Your task to perform on an android device: Open Youtube and go to "Your channel" Image 0: 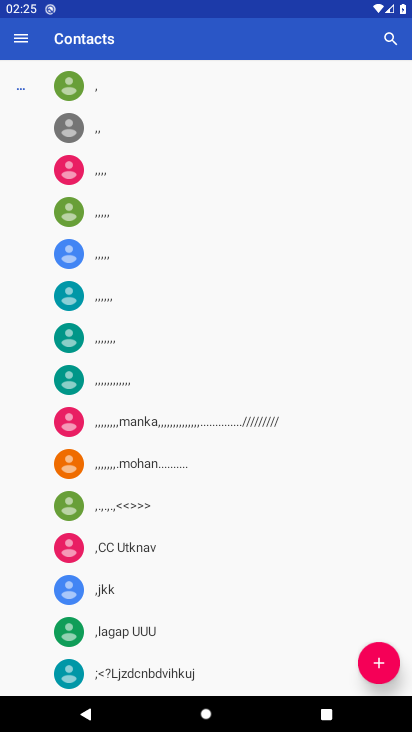
Step 0: press home button
Your task to perform on an android device: Open Youtube and go to "Your channel" Image 1: 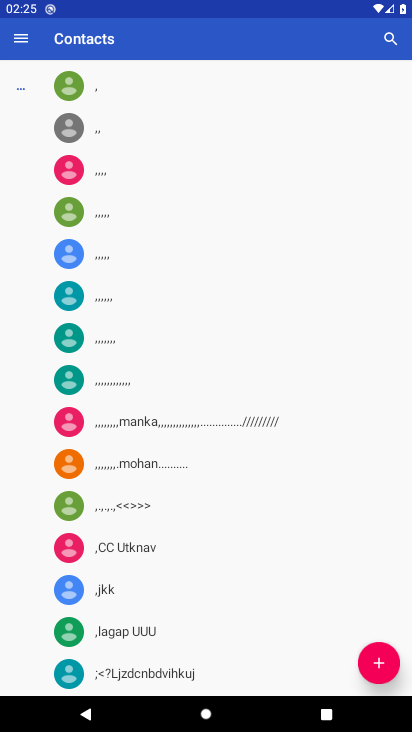
Step 1: press home button
Your task to perform on an android device: Open Youtube and go to "Your channel" Image 2: 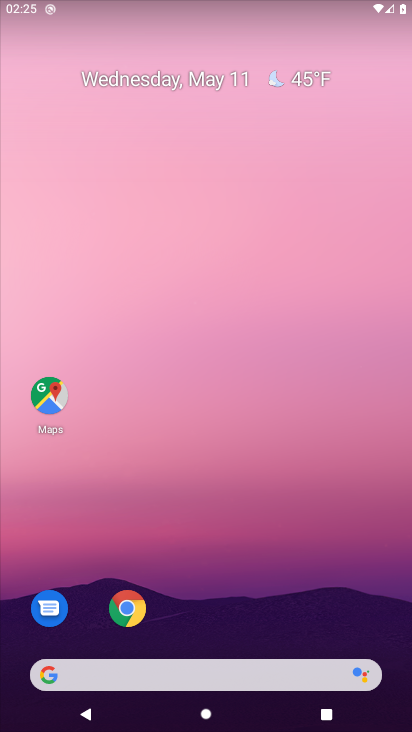
Step 2: drag from (209, 632) to (234, 99)
Your task to perform on an android device: Open Youtube and go to "Your channel" Image 3: 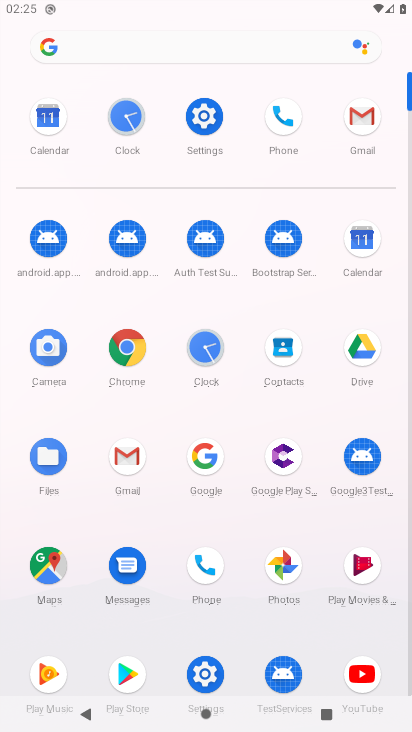
Step 3: click (360, 669)
Your task to perform on an android device: Open Youtube and go to "Your channel" Image 4: 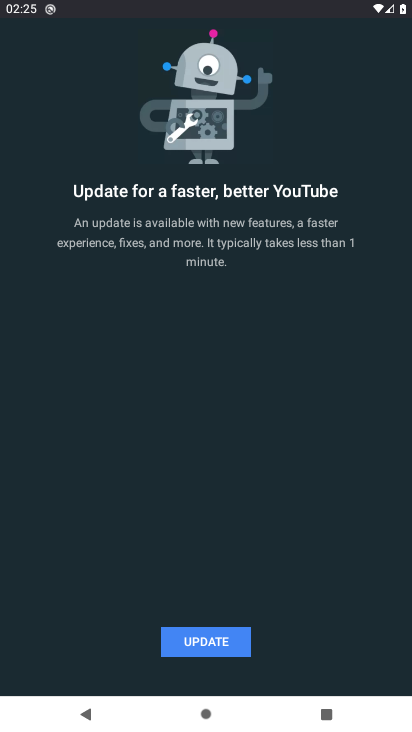
Step 4: click (218, 638)
Your task to perform on an android device: Open Youtube and go to "Your channel" Image 5: 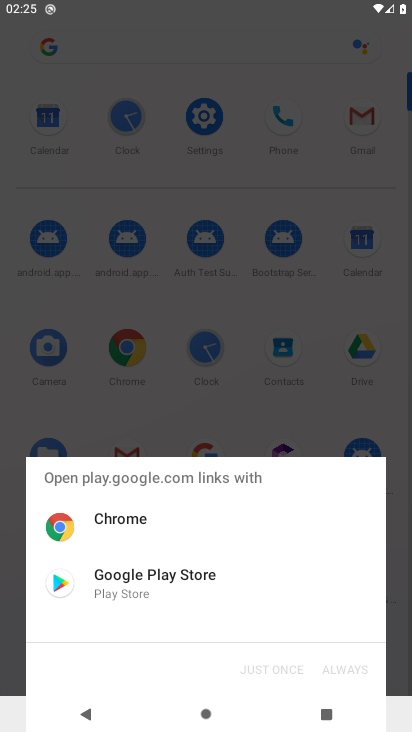
Step 5: click (122, 579)
Your task to perform on an android device: Open Youtube and go to "Your channel" Image 6: 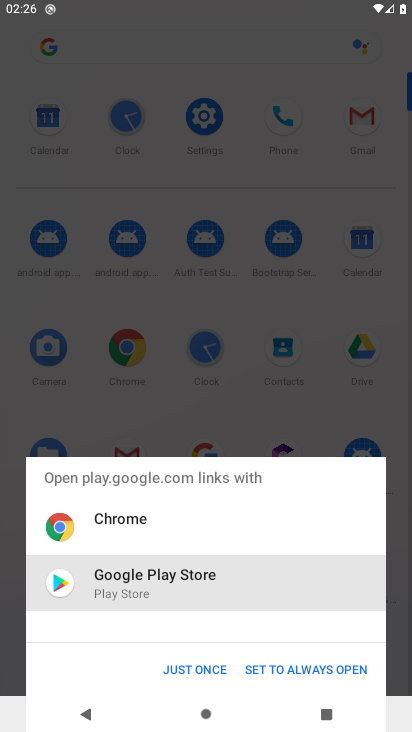
Step 6: click (205, 662)
Your task to perform on an android device: Open Youtube and go to "Your channel" Image 7: 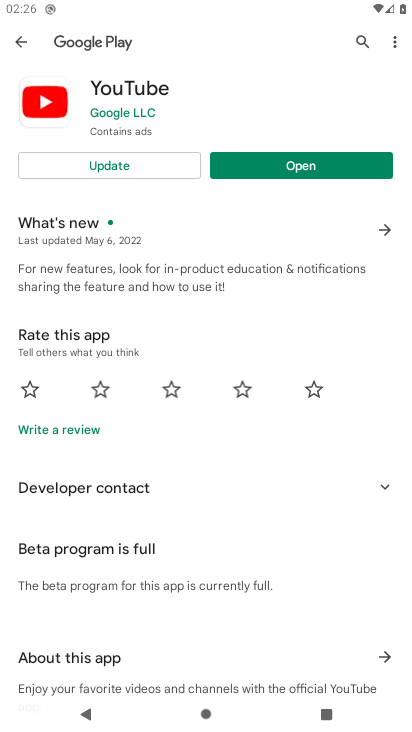
Step 7: click (177, 162)
Your task to perform on an android device: Open Youtube and go to "Your channel" Image 8: 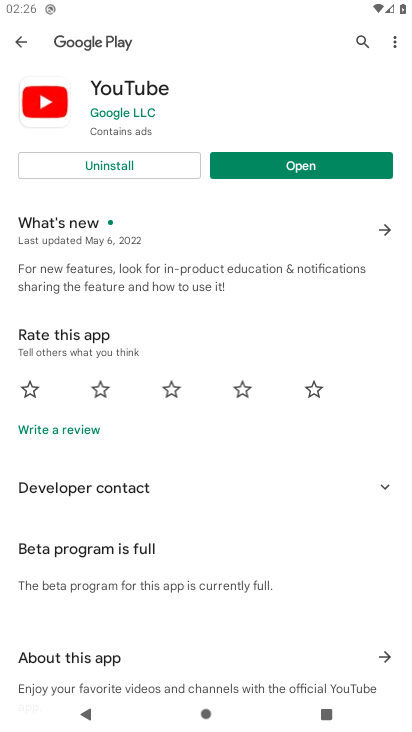
Step 8: click (308, 158)
Your task to perform on an android device: Open Youtube and go to "Your channel" Image 9: 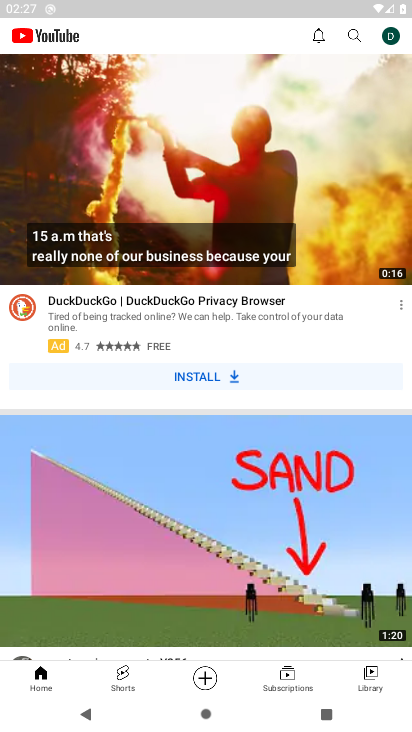
Step 9: click (359, 673)
Your task to perform on an android device: Open Youtube and go to "Your channel" Image 10: 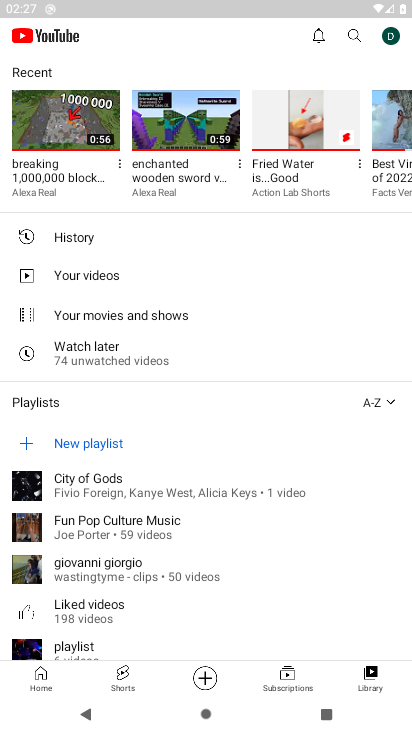
Step 10: click (390, 30)
Your task to perform on an android device: Open Youtube and go to "Your channel" Image 11: 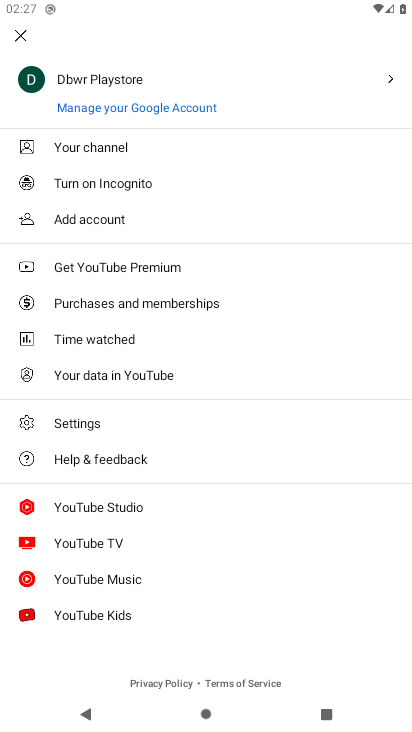
Step 11: click (119, 150)
Your task to perform on an android device: Open Youtube and go to "Your channel" Image 12: 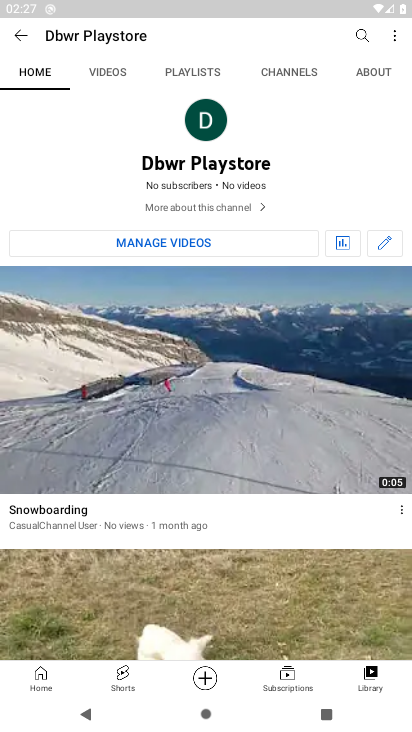
Step 12: task complete